Your task to perform on an android device: Go to Wikipedia Image 0: 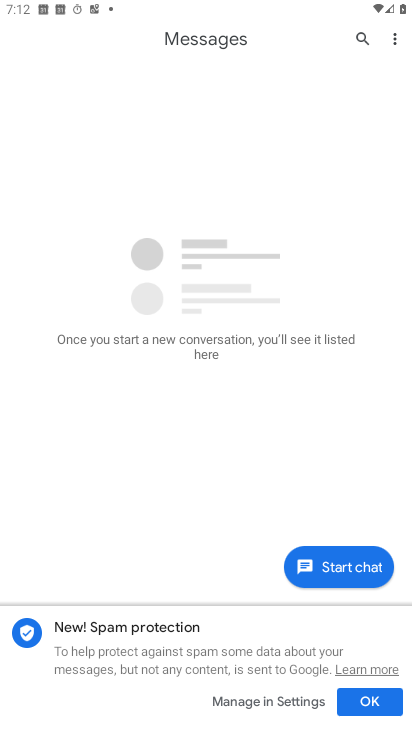
Step 0: press home button
Your task to perform on an android device: Go to Wikipedia Image 1: 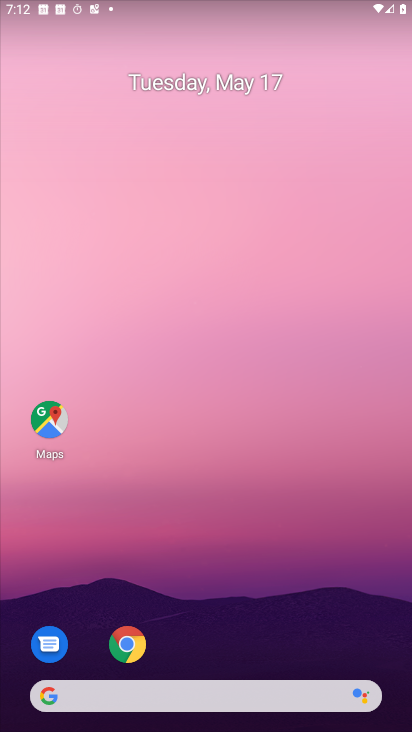
Step 1: drag from (365, 620) to (327, 65)
Your task to perform on an android device: Go to Wikipedia Image 2: 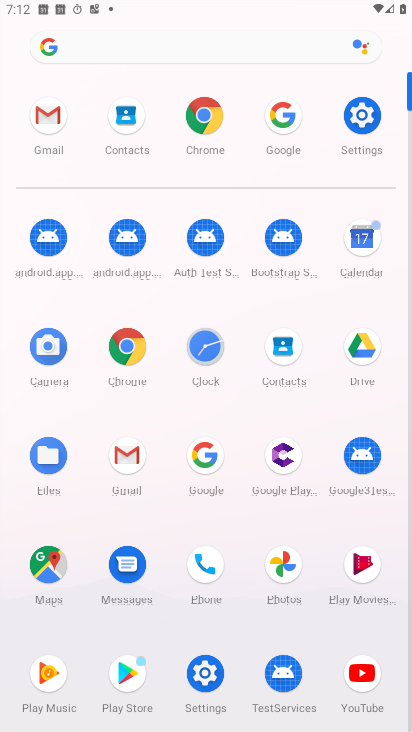
Step 2: click (220, 111)
Your task to perform on an android device: Go to Wikipedia Image 3: 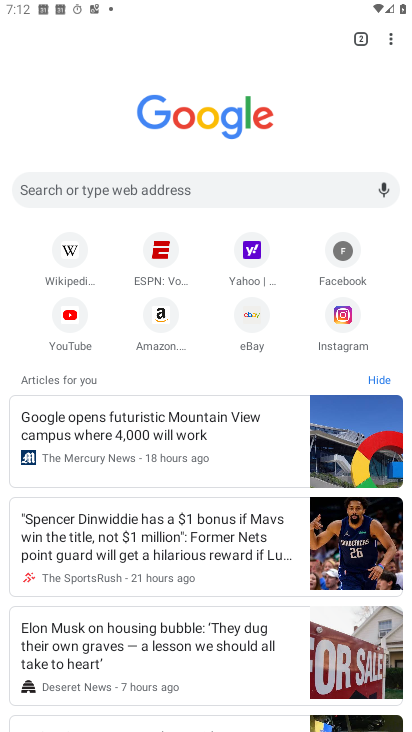
Step 3: click (57, 264)
Your task to perform on an android device: Go to Wikipedia Image 4: 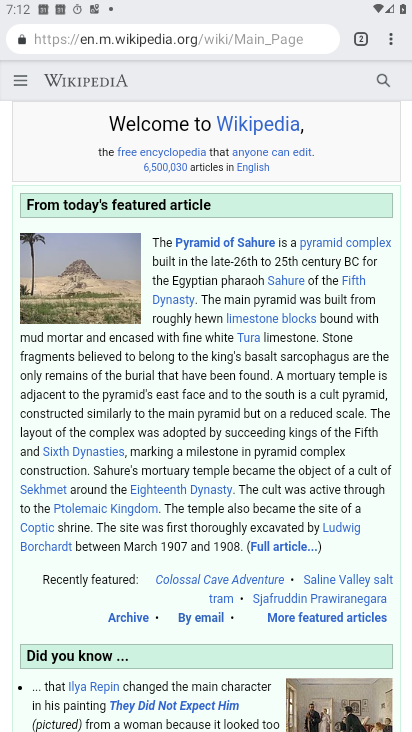
Step 4: task complete